Your task to perform on an android device: turn on improve location accuracy Image 0: 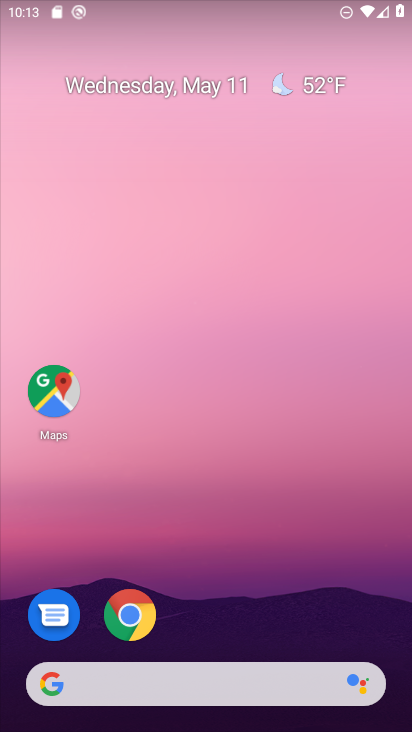
Step 0: drag from (253, 613) to (269, 61)
Your task to perform on an android device: turn on improve location accuracy Image 1: 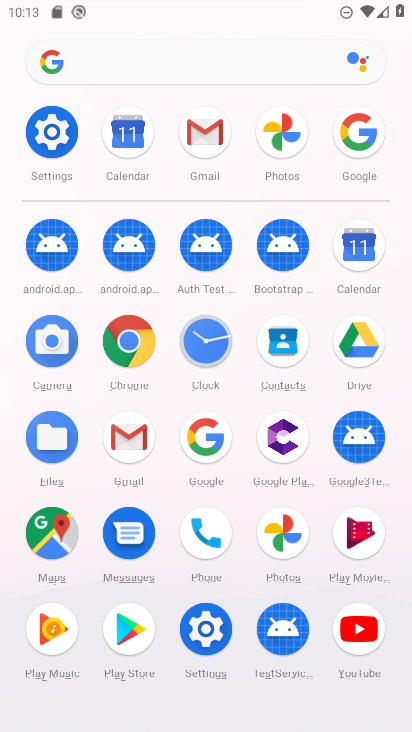
Step 1: click (51, 133)
Your task to perform on an android device: turn on improve location accuracy Image 2: 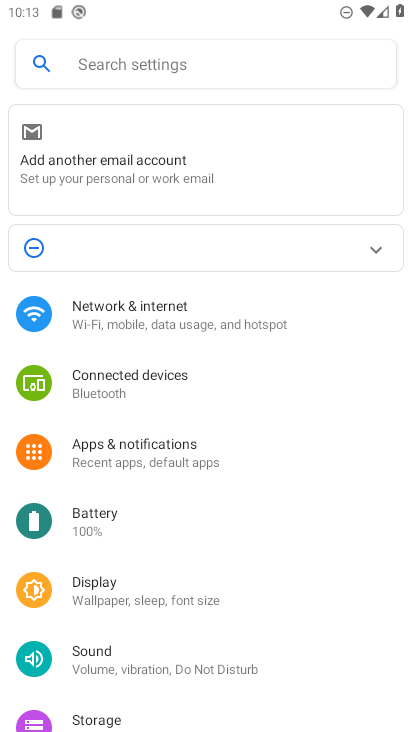
Step 2: drag from (173, 486) to (221, 388)
Your task to perform on an android device: turn on improve location accuracy Image 3: 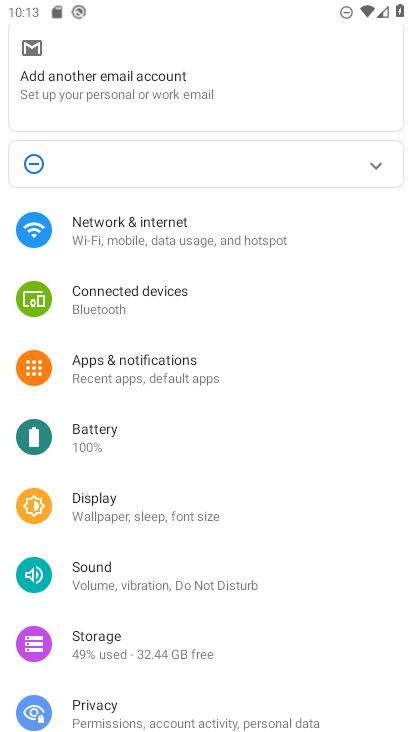
Step 3: drag from (144, 470) to (208, 383)
Your task to perform on an android device: turn on improve location accuracy Image 4: 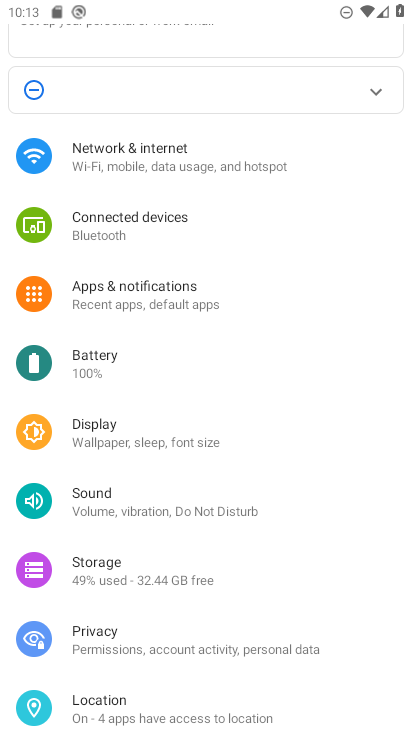
Step 4: drag from (120, 530) to (214, 422)
Your task to perform on an android device: turn on improve location accuracy Image 5: 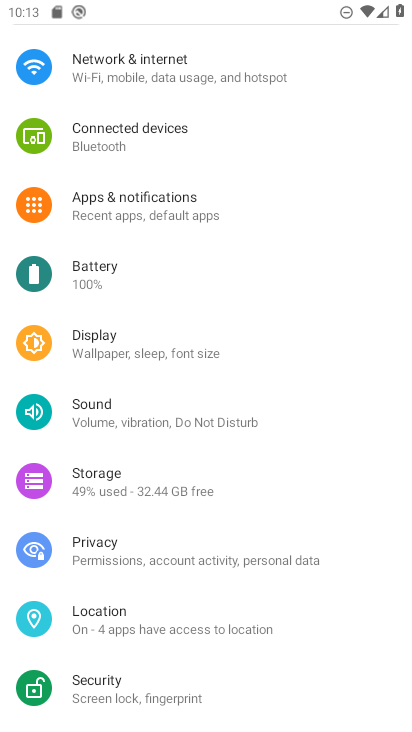
Step 5: drag from (130, 539) to (221, 428)
Your task to perform on an android device: turn on improve location accuracy Image 6: 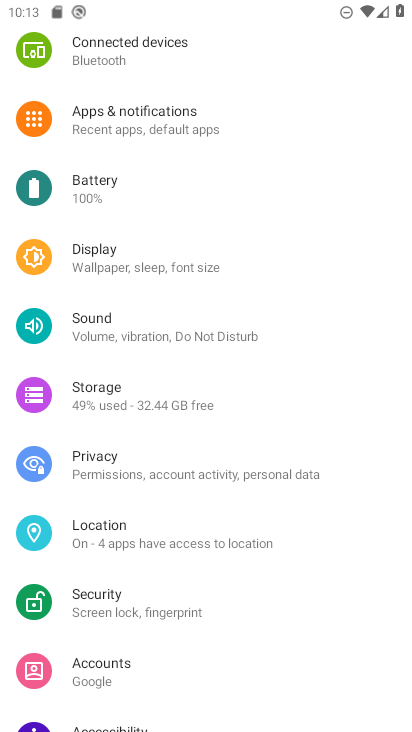
Step 6: click (121, 522)
Your task to perform on an android device: turn on improve location accuracy Image 7: 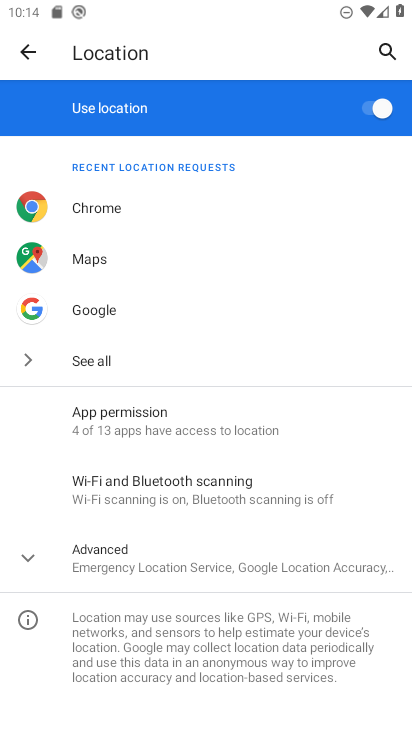
Step 7: click (151, 556)
Your task to perform on an android device: turn on improve location accuracy Image 8: 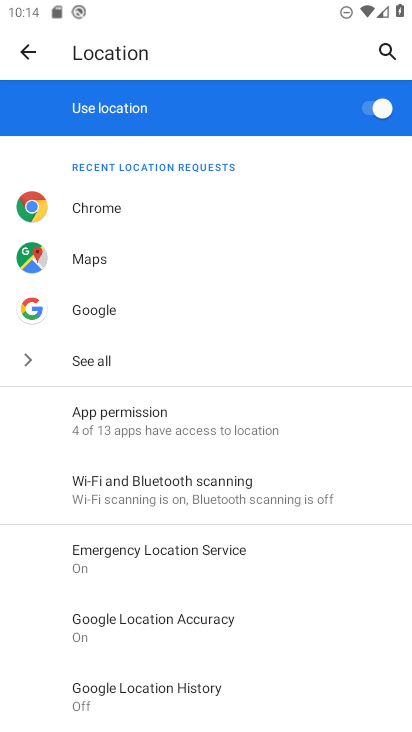
Step 8: drag from (175, 595) to (216, 502)
Your task to perform on an android device: turn on improve location accuracy Image 9: 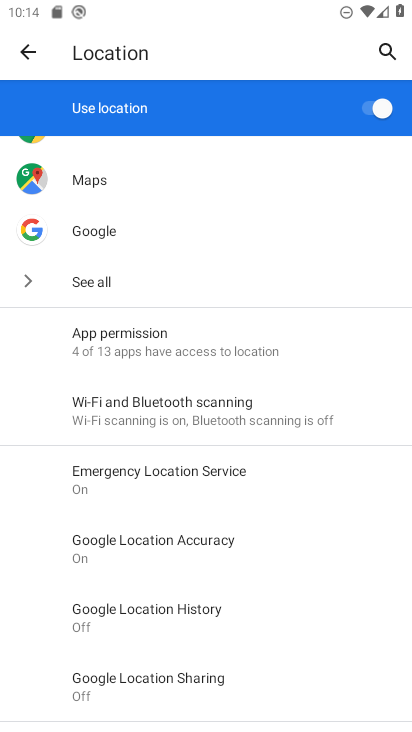
Step 9: click (206, 536)
Your task to perform on an android device: turn on improve location accuracy Image 10: 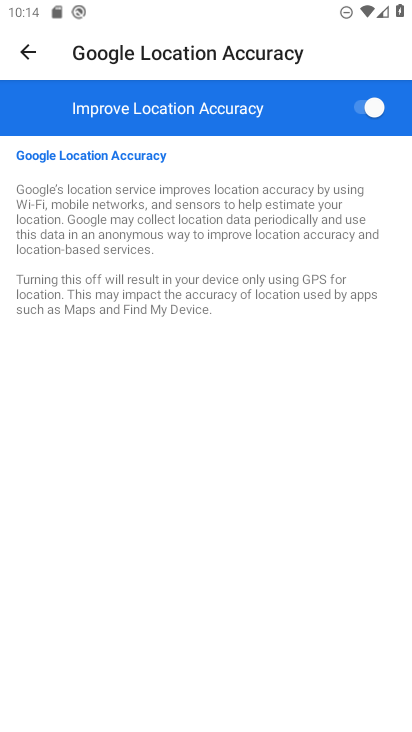
Step 10: task complete